Your task to perform on an android device: Search for vegetarian restaurants on Maps Image 0: 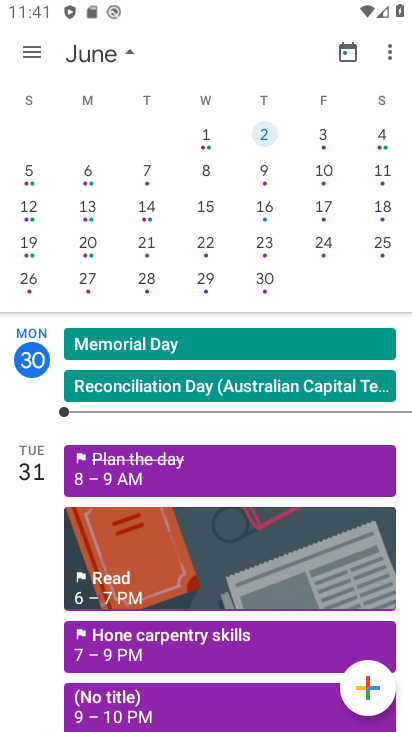
Step 0: press home button
Your task to perform on an android device: Search for vegetarian restaurants on Maps Image 1: 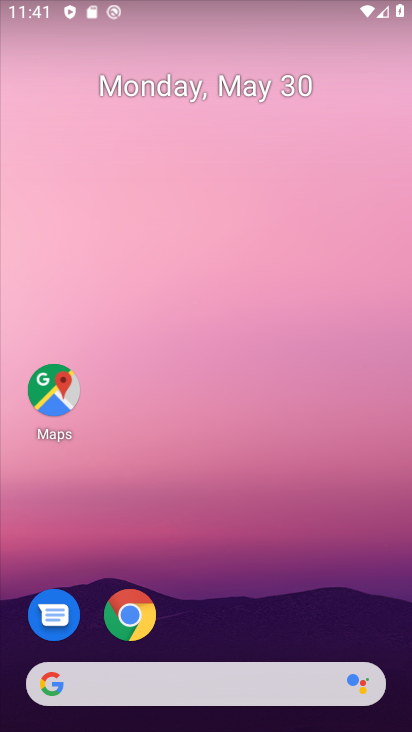
Step 1: drag from (352, 606) to (372, 237)
Your task to perform on an android device: Search for vegetarian restaurants on Maps Image 2: 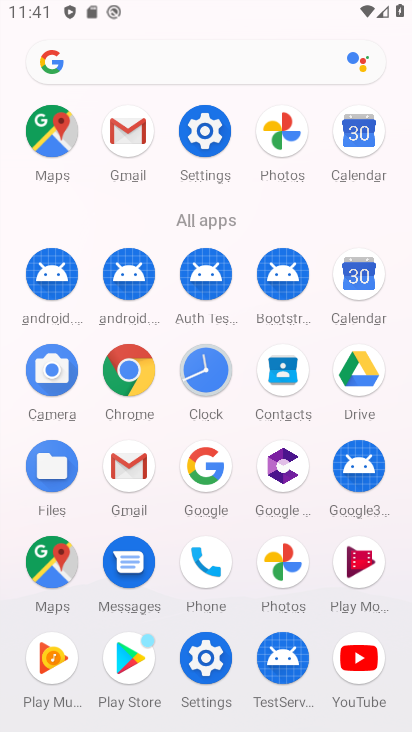
Step 2: click (60, 141)
Your task to perform on an android device: Search for vegetarian restaurants on Maps Image 3: 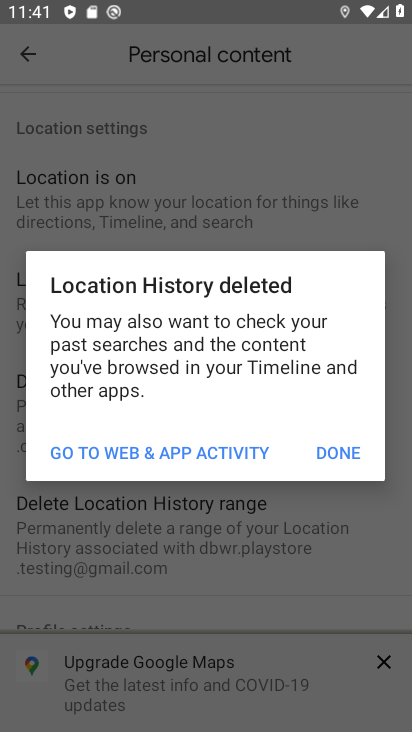
Step 3: click (335, 451)
Your task to perform on an android device: Search for vegetarian restaurants on Maps Image 4: 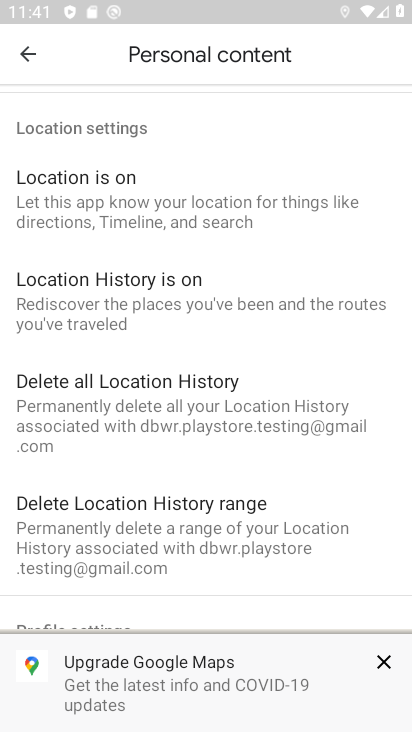
Step 4: press back button
Your task to perform on an android device: Search for vegetarian restaurants on Maps Image 5: 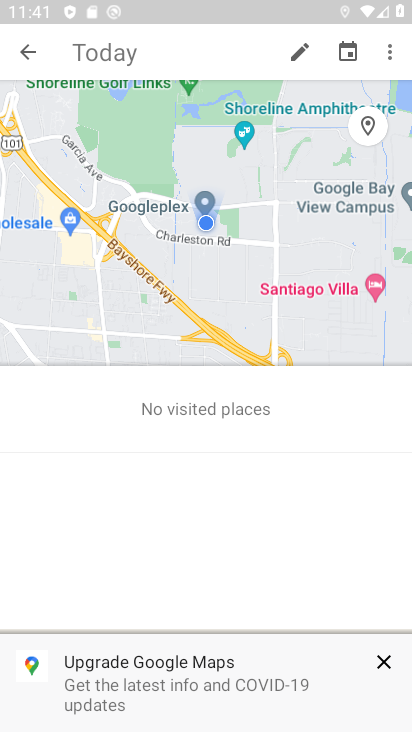
Step 5: press back button
Your task to perform on an android device: Search for vegetarian restaurants on Maps Image 6: 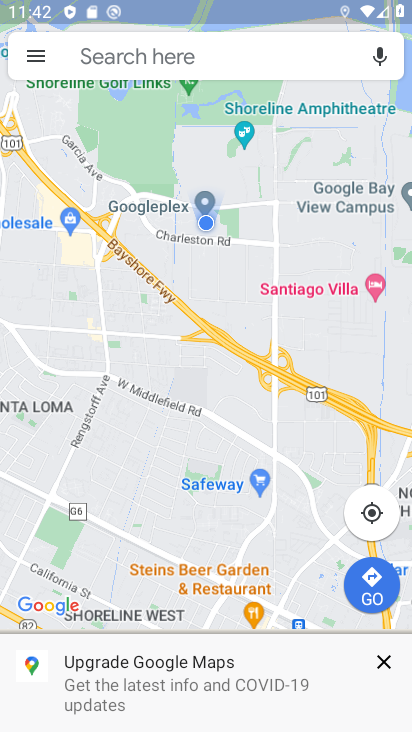
Step 6: click (174, 55)
Your task to perform on an android device: Search for vegetarian restaurants on Maps Image 7: 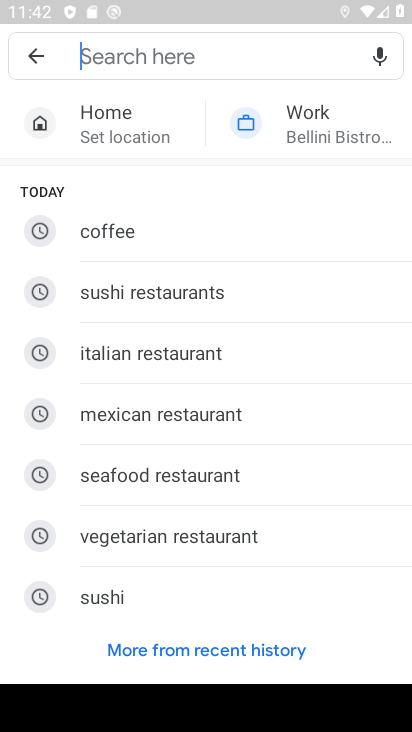
Step 7: type "vegetrain"
Your task to perform on an android device: Search for vegetarian restaurants on Maps Image 8: 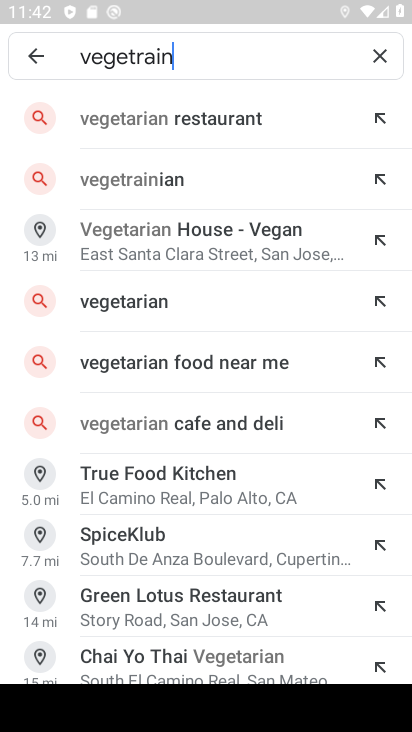
Step 8: click (221, 120)
Your task to perform on an android device: Search for vegetarian restaurants on Maps Image 9: 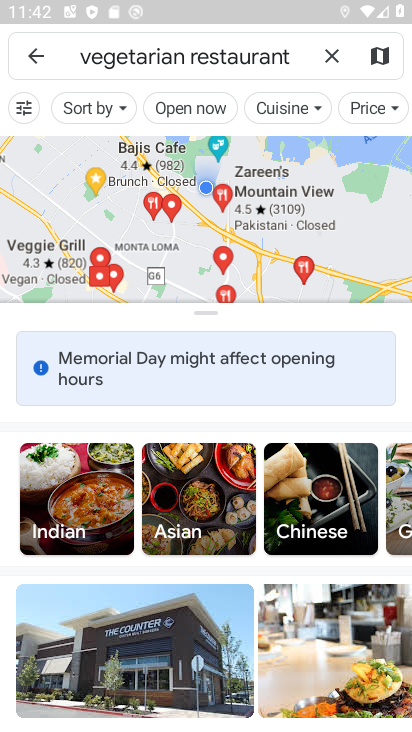
Step 9: task complete